Your task to perform on an android device: snooze an email in the gmail app Image 0: 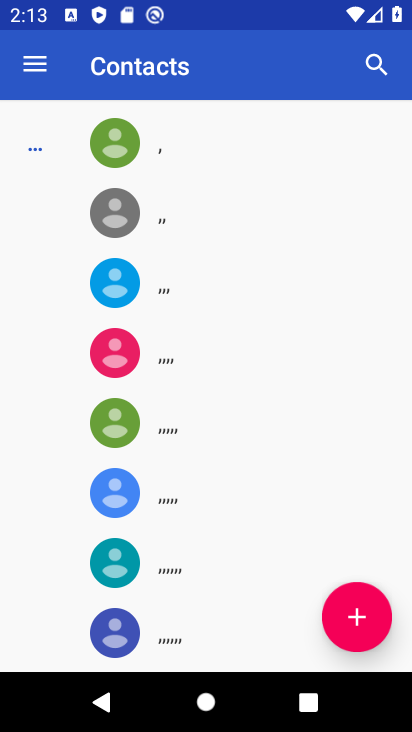
Step 0: press home button
Your task to perform on an android device: snooze an email in the gmail app Image 1: 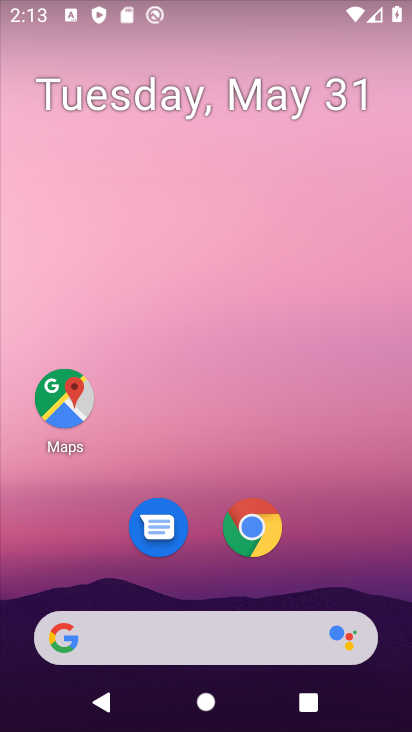
Step 1: drag from (396, 640) to (326, 40)
Your task to perform on an android device: snooze an email in the gmail app Image 2: 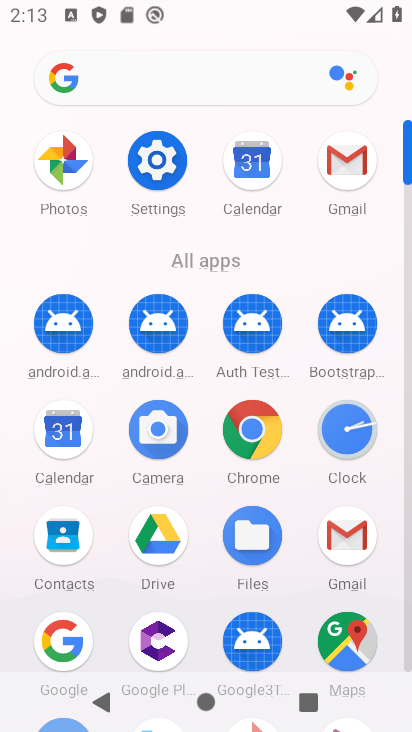
Step 2: click (410, 654)
Your task to perform on an android device: snooze an email in the gmail app Image 3: 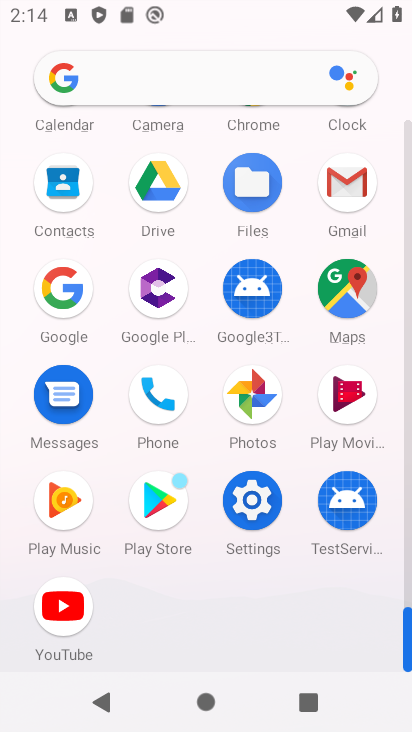
Step 3: click (343, 180)
Your task to perform on an android device: snooze an email in the gmail app Image 4: 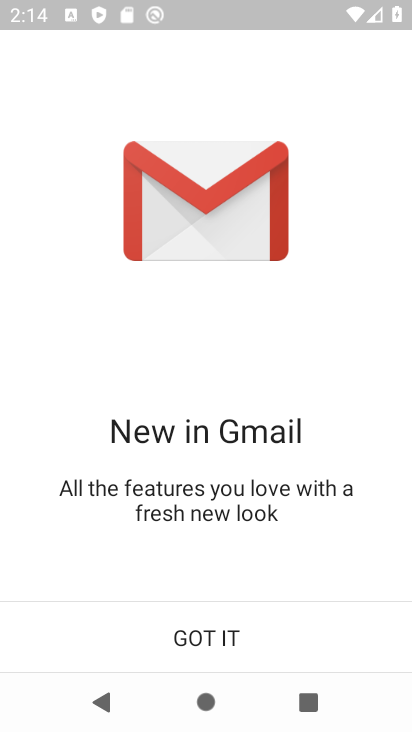
Step 4: click (202, 631)
Your task to perform on an android device: snooze an email in the gmail app Image 5: 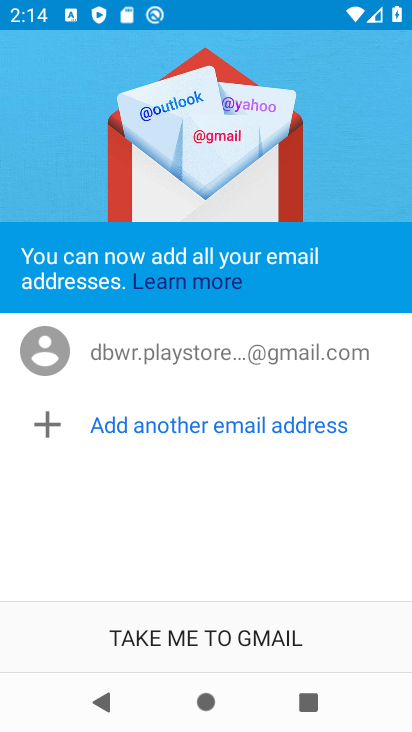
Step 5: click (189, 652)
Your task to perform on an android device: snooze an email in the gmail app Image 6: 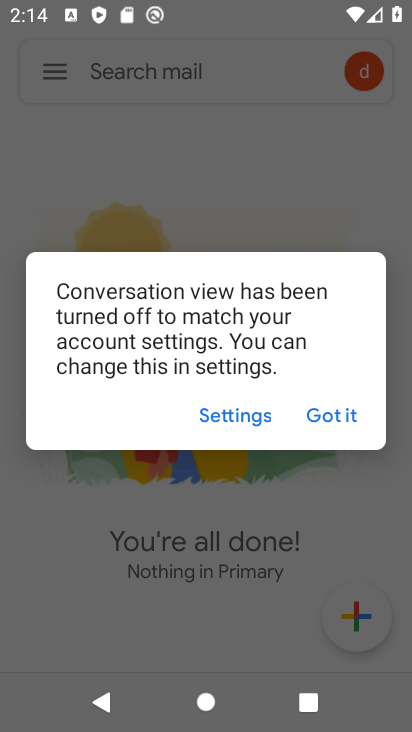
Step 6: click (319, 412)
Your task to perform on an android device: snooze an email in the gmail app Image 7: 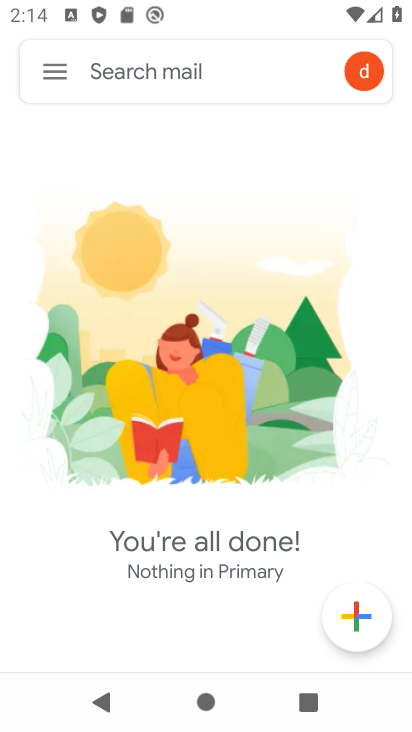
Step 7: click (52, 75)
Your task to perform on an android device: snooze an email in the gmail app Image 8: 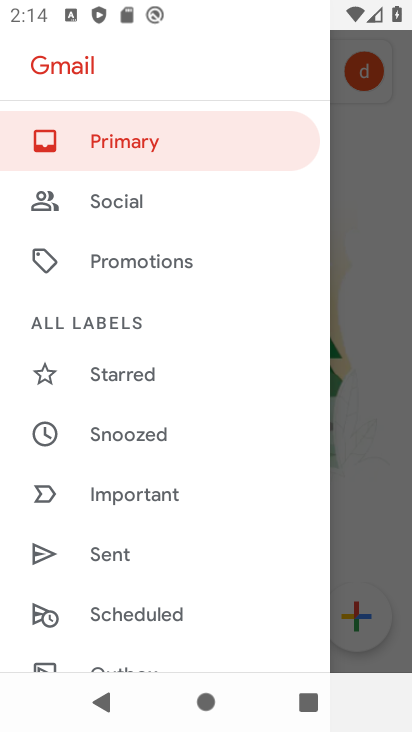
Step 8: drag from (231, 623) to (199, 212)
Your task to perform on an android device: snooze an email in the gmail app Image 9: 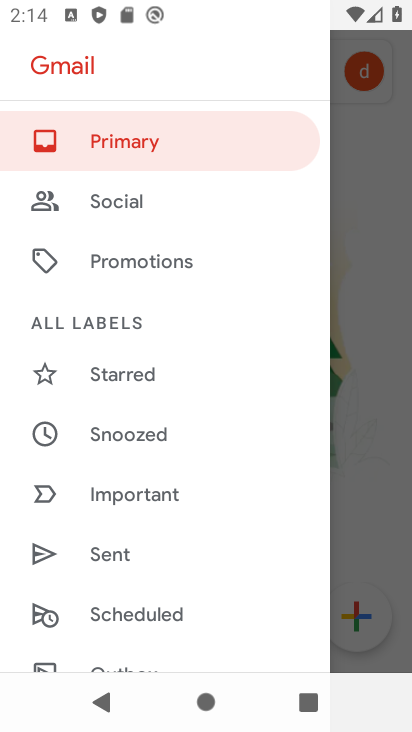
Step 9: drag from (206, 632) to (216, 263)
Your task to perform on an android device: snooze an email in the gmail app Image 10: 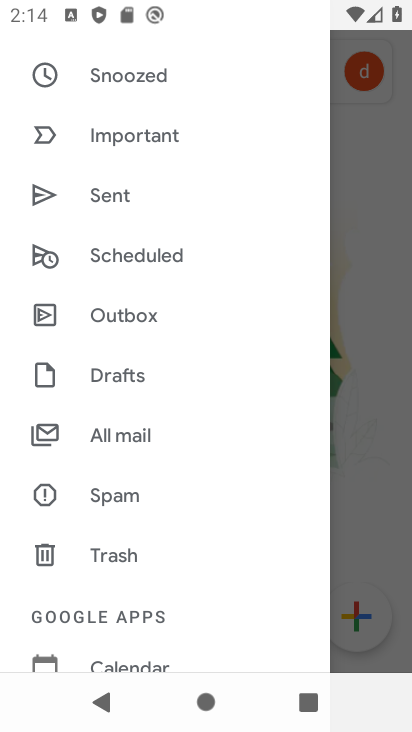
Step 10: click (126, 427)
Your task to perform on an android device: snooze an email in the gmail app Image 11: 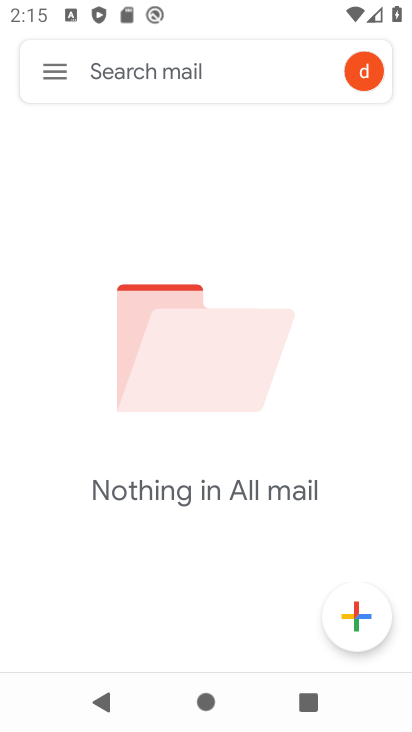
Step 11: task complete